Your task to perform on an android device: turn off sleep mode Image 0: 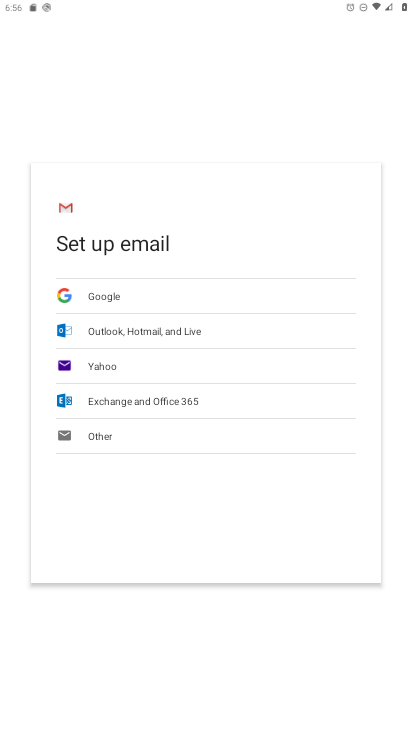
Step 0: press home button
Your task to perform on an android device: turn off sleep mode Image 1: 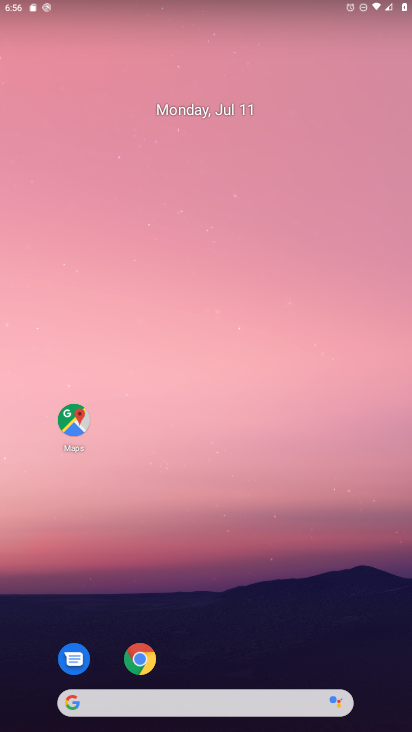
Step 1: drag from (371, 647) to (299, 111)
Your task to perform on an android device: turn off sleep mode Image 2: 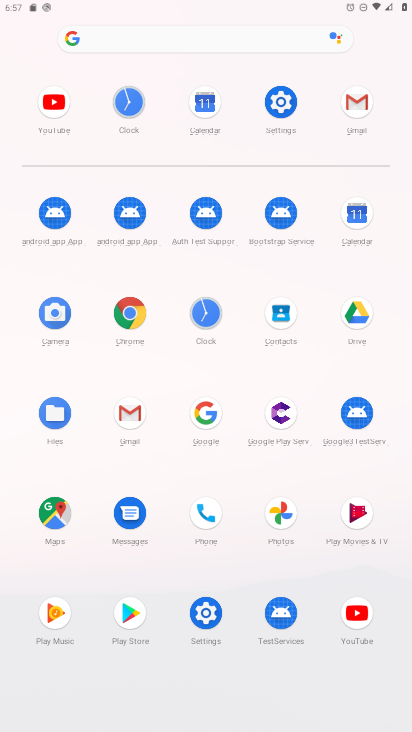
Step 2: click (204, 609)
Your task to perform on an android device: turn off sleep mode Image 3: 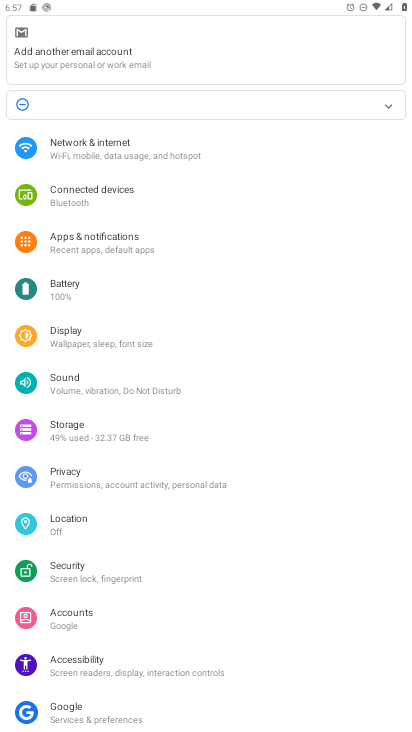
Step 3: click (60, 318)
Your task to perform on an android device: turn off sleep mode Image 4: 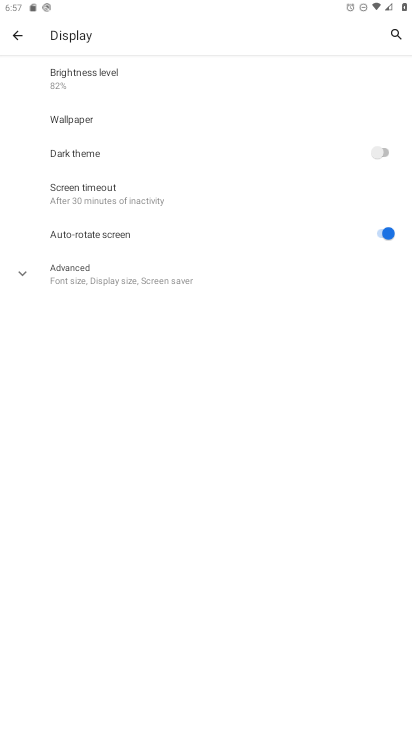
Step 4: click (30, 272)
Your task to perform on an android device: turn off sleep mode Image 5: 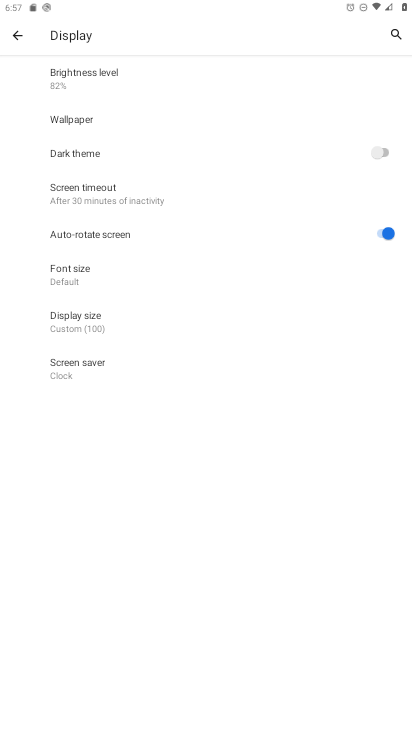
Step 5: task complete